Your task to perform on an android device: see creations saved in the google photos Image 0: 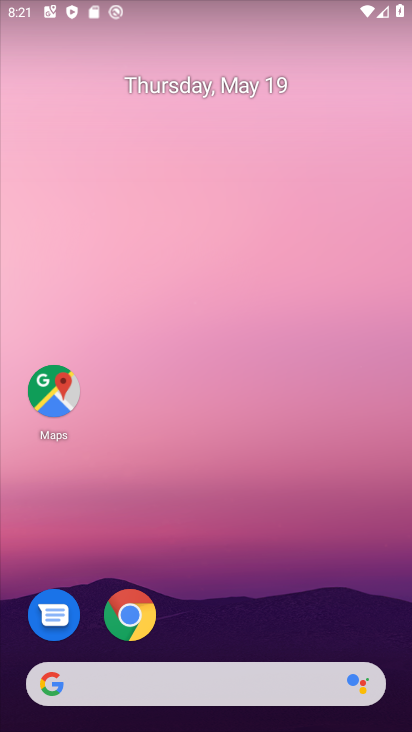
Step 0: drag from (237, 570) to (229, 100)
Your task to perform on an android device: see creations saved in the google photos Image 1: 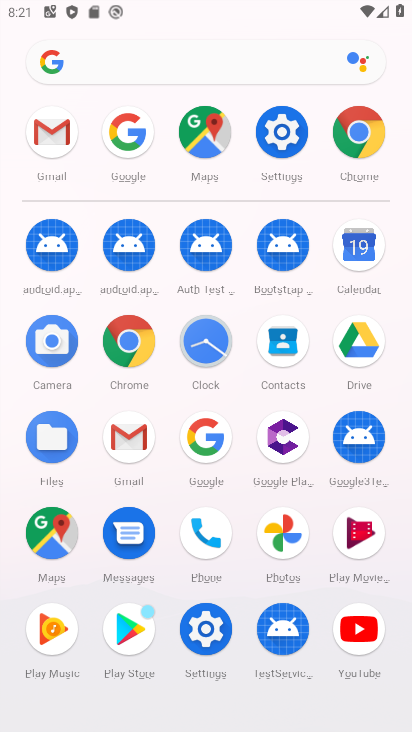
Step 1: click (274, 532)
Your task to perform on an android device: see creations saved in the google photos Image 2: 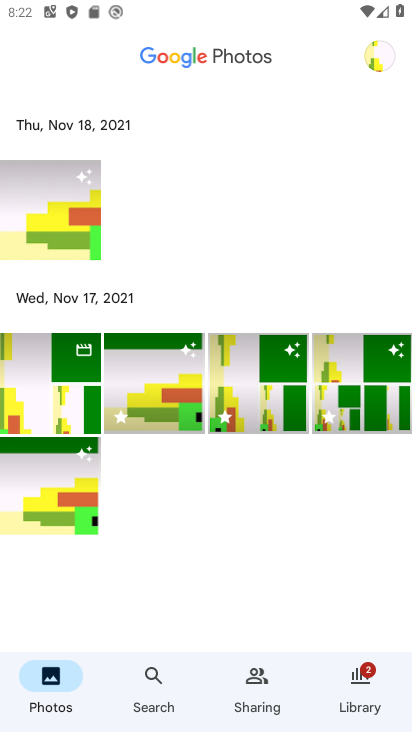
Step 2: click (157, 676)
Your task to perform on an android device: see creations saved in the google photos Image 3: 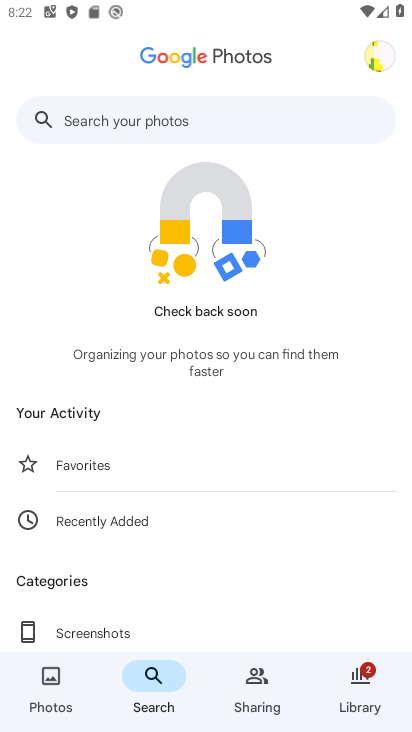
Step 3: drag from (216, 545) to (256, 66)
Your task to perform on an android device: see creations saved in the google photos Image 4: 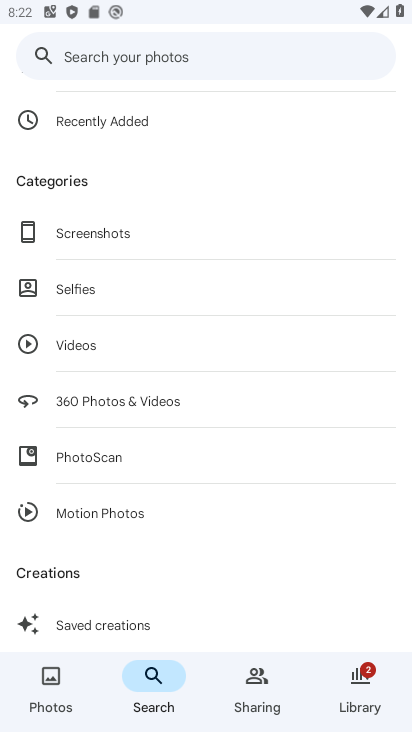
Step 4: drag from (183, 597) to (242, 222)
Your task to perform on an android device: see creations saved in the google photos Image 5: 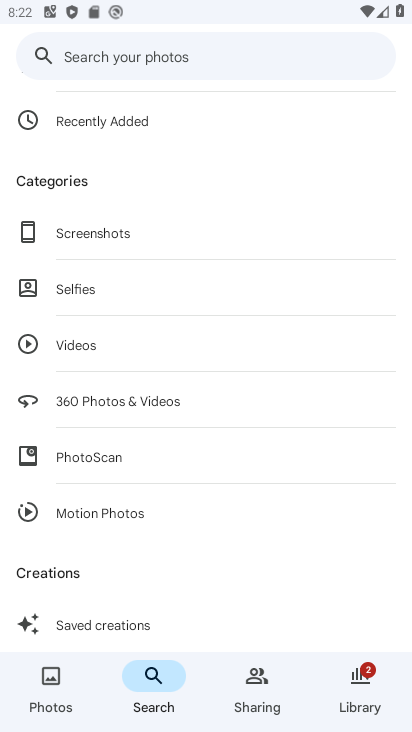
Step 5: click (123, 631)
Your task to perform on an android device: see creations saved in the google photos Image 6: 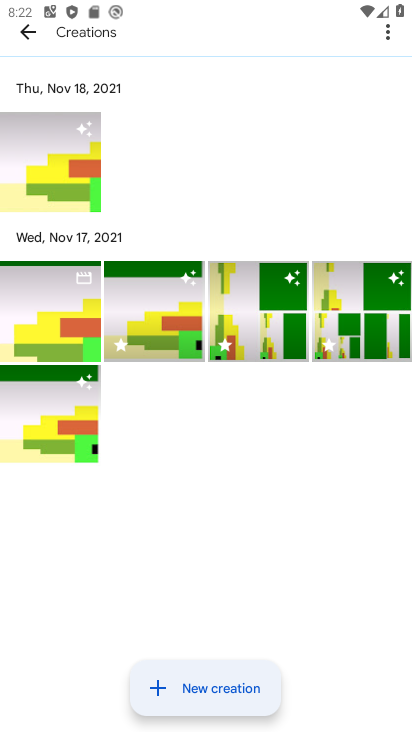
Step 6: task complete